Your task to perform on an android device: See recent photos Image 0: 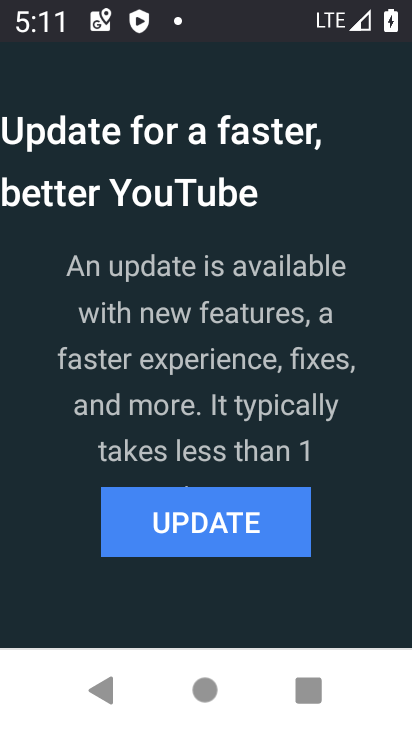
Step 0: press home button
Your task to perform on an android device: See recent photos Image 1: 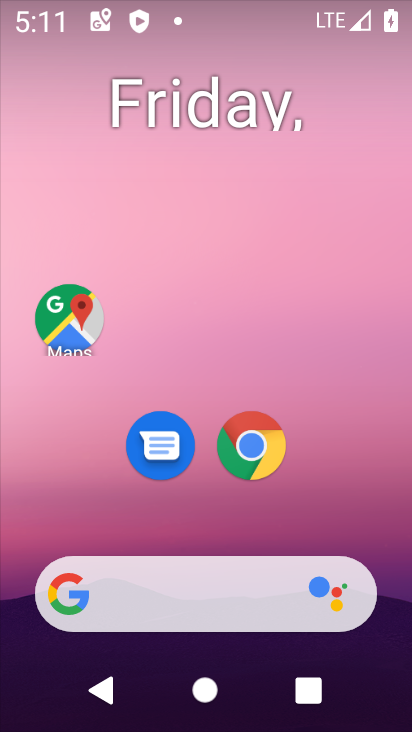
Step 1: drag from (342, 515) to (328, 32)
Your task to perform on an android device: See recent photos Image 2: 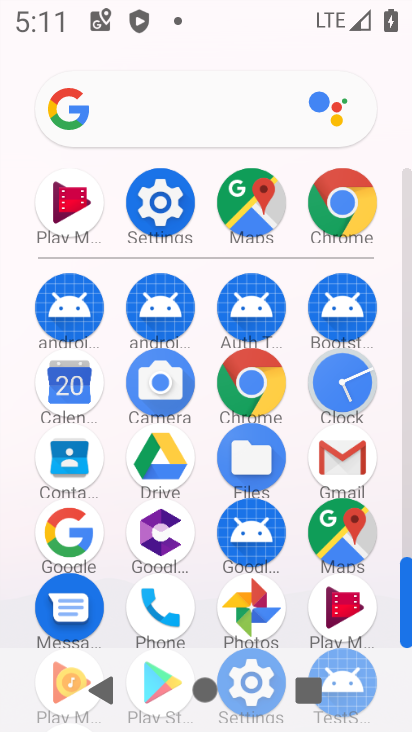
Step 2: click (262, 608)
Your task to perform on an android device: See recent photos Image 3: 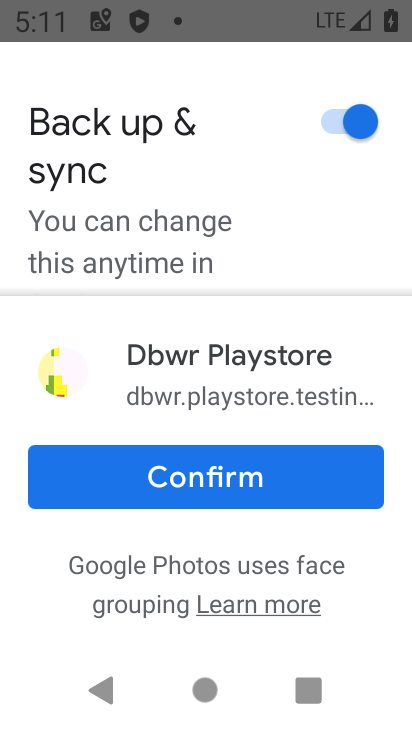
Step 3: click (278, 474)
Your task to perform on an android device: See recent photos Image 4: 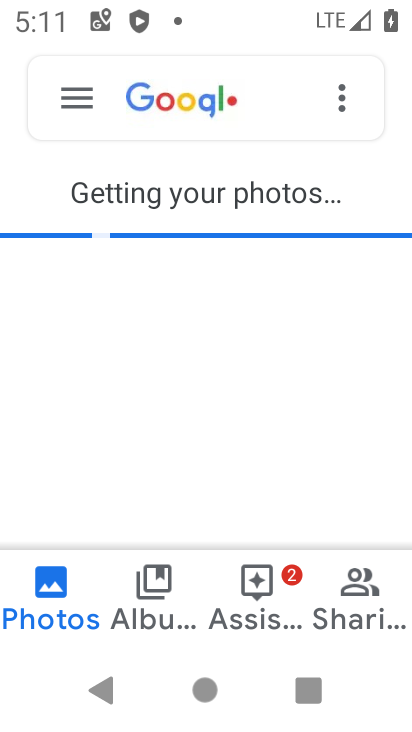
Step 4: click (230, 604)
Your task to perform on an android device: See recent photos Image 5: 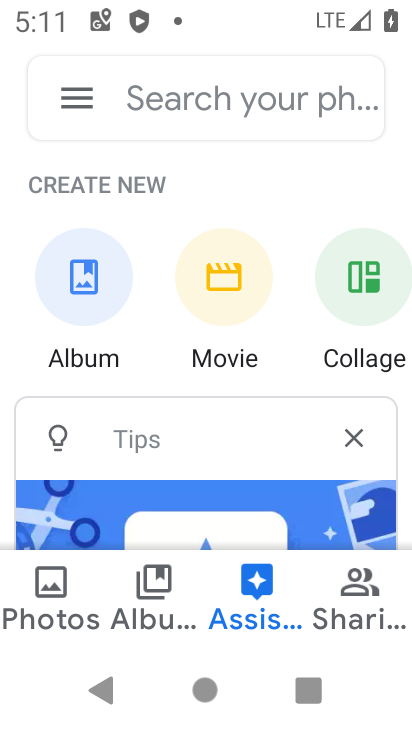
Step 5: task complete